Your task to perform on an android device: Go to Google Image 0: 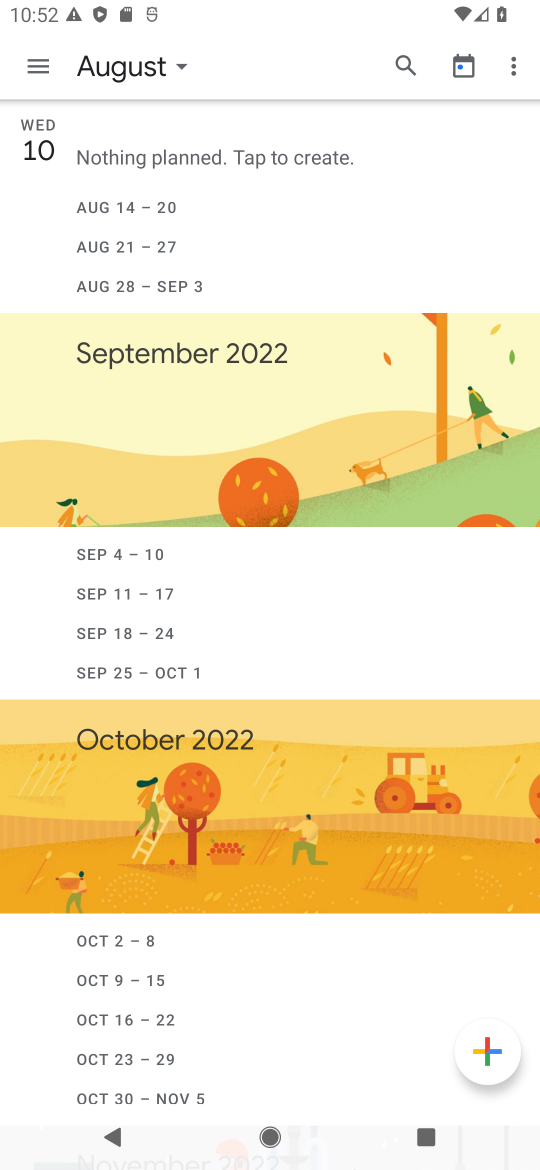
Step 0: press home button
Your task to perform on an android device: Go to Google Image 1: 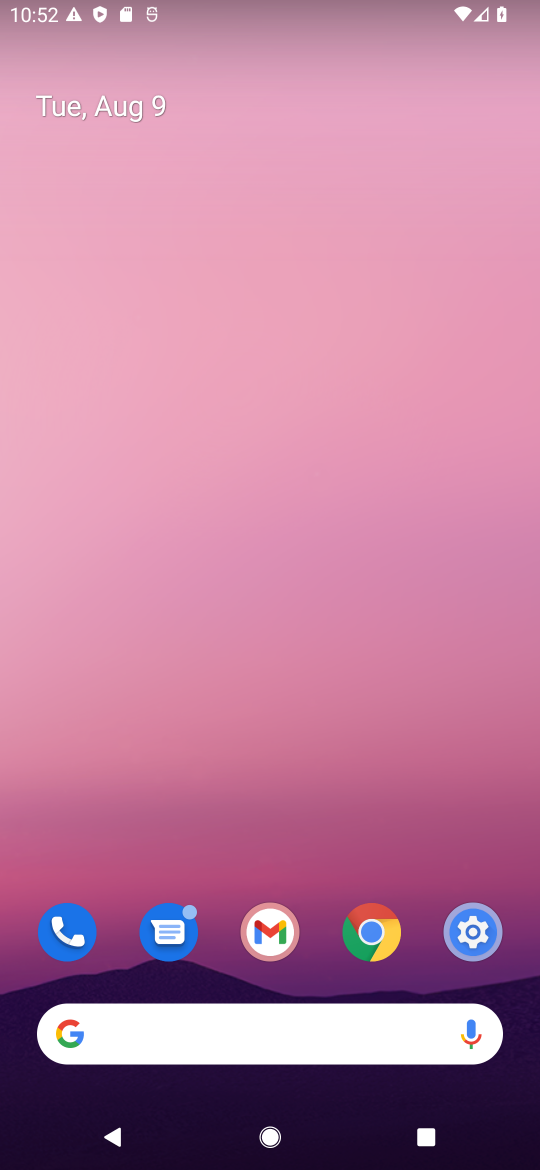
Step 1: click (68, 1033)
Your task to perform on an android device: Go to Google Image 2: 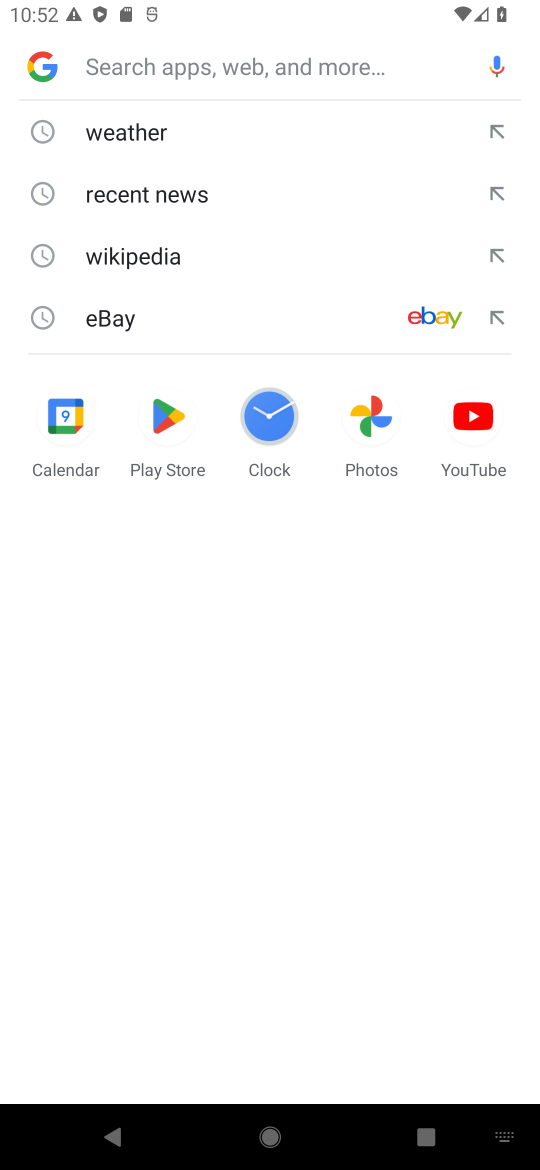
Step 2: click (41, 63)
Your task to perform on an android device: Go to Google Image 3: 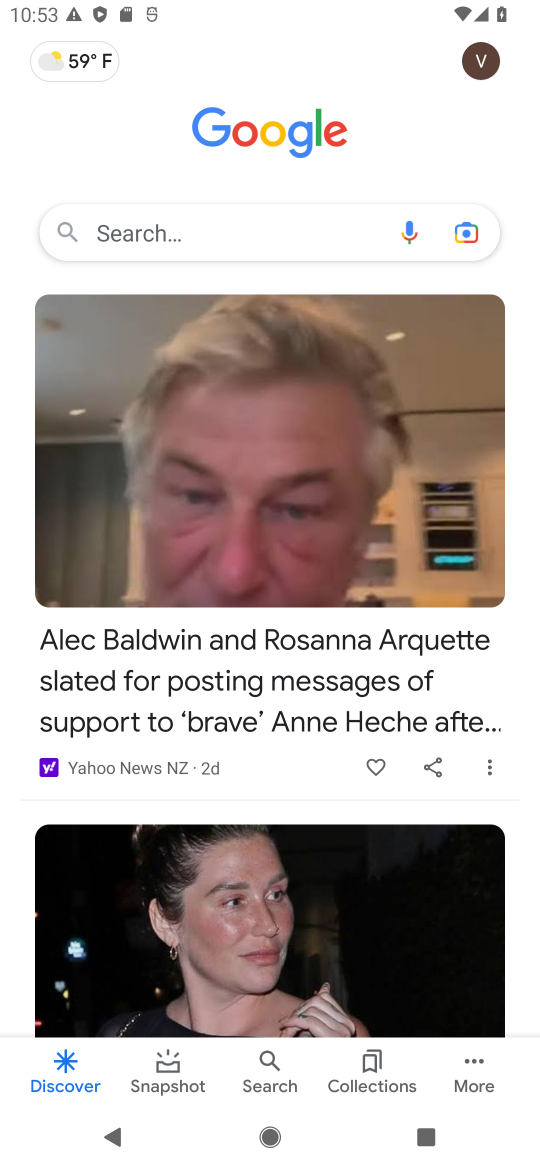
Step 3: task complete